Your task to perform on an android device: turn off priority inbox in the gmail app Image 0: 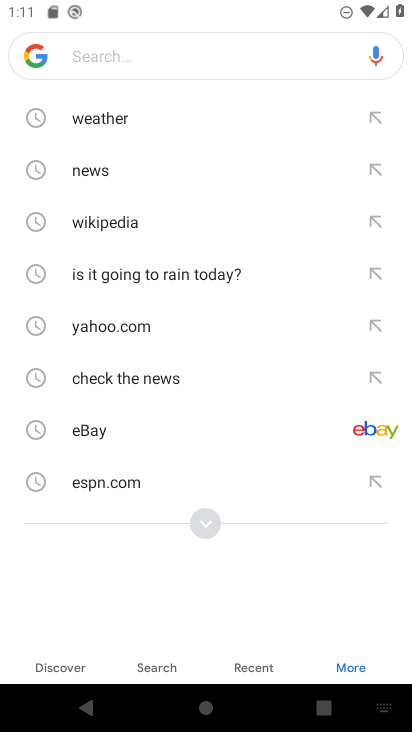
Step 0: press home button
Your task to perform on an android device: turn off priority inbox in the gmail app Image 1: 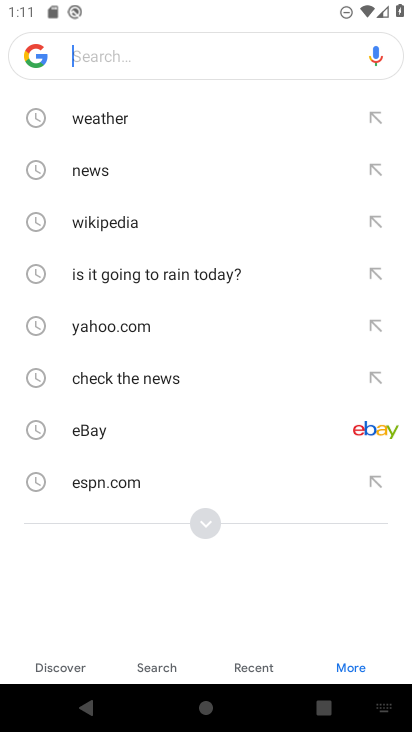
Step 1: press home button
Your task to perform on an android device: turn off priority inbox in the gmail app Image 2: 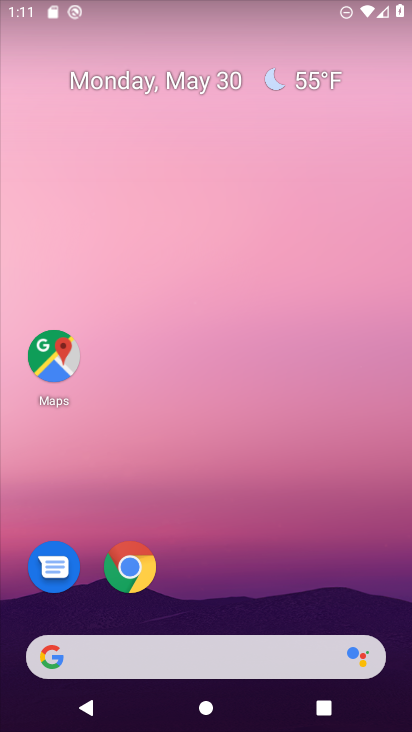
Step 2: drag from (210, 616) to (182, 54)
Your task to perform on an android device: turn off priority inbox in the gmail app Image 3: 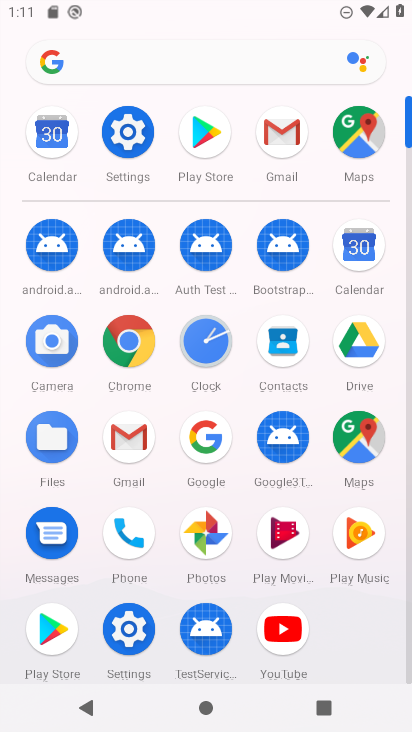
Step 3: click (279, 128)
Your task to perform on an android device: turn off priority inbox in the gmail app Image 4: 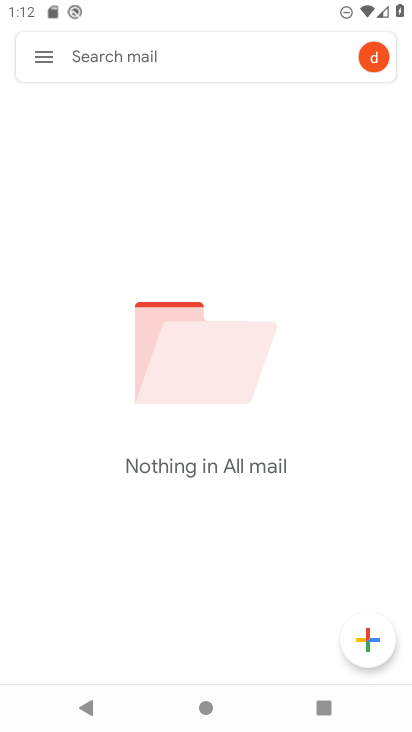
Step 4: click (35, 50)
Your task to perform on an android device: turn off priority inbox in the gmail app Image 5: 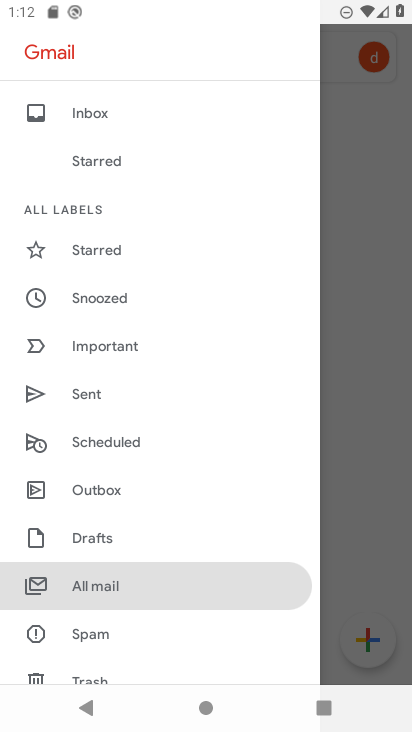
Step 5: drag from (117, 640) to (110, 254)
Your task to perform on an android device: turn off priority inbox in the gmail app Image 6: 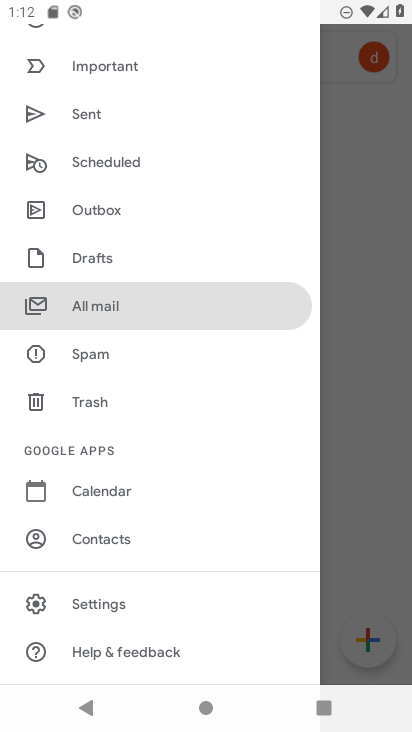
Step 6: click (135, 593)
Your task to perform on an android device: turn off priority inbox in the gmail app Image 7: 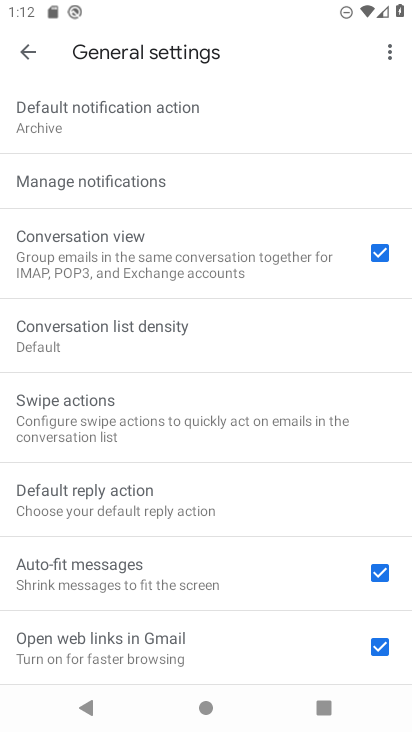
Step 7: click (22, 45)
Your task to perform on an android device: turn off priority inbox in the gmail app Image 8: 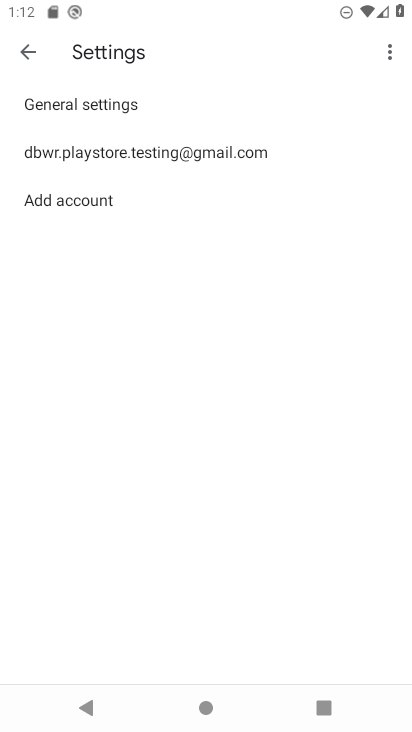
Step 8: click (201, 145)
Your task to perform on an android device: turn off priority inbox in the gmail app Image 9: 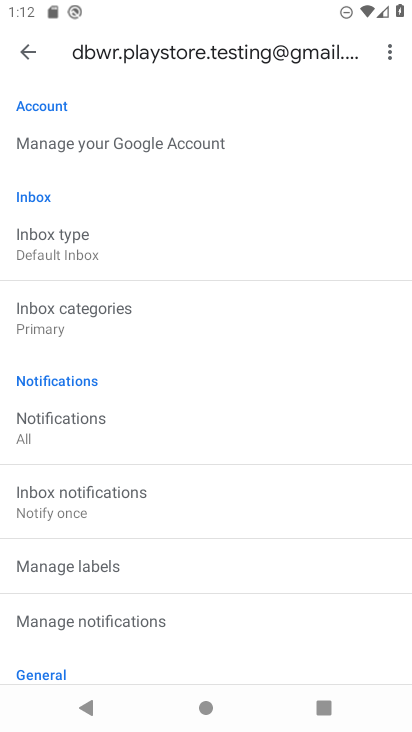
Step 9: click (102, 251)
Your task to perform on an android device: turn off priority inbox in the gmail app Image 10: 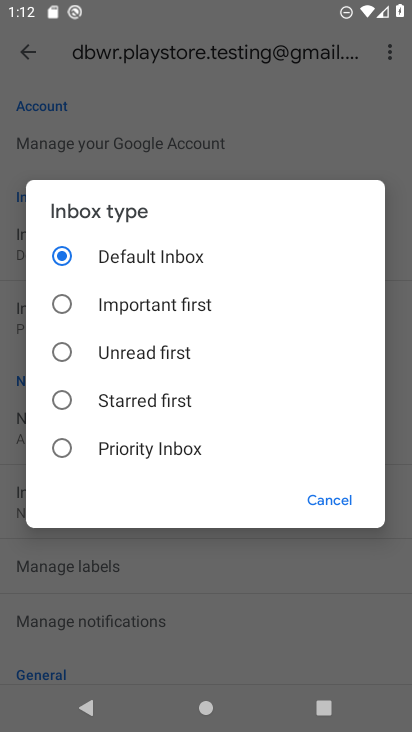
Step 10: click (54, 403)
Your task to perform on an android device: turn off priority inbox in the gmail app Image 11: 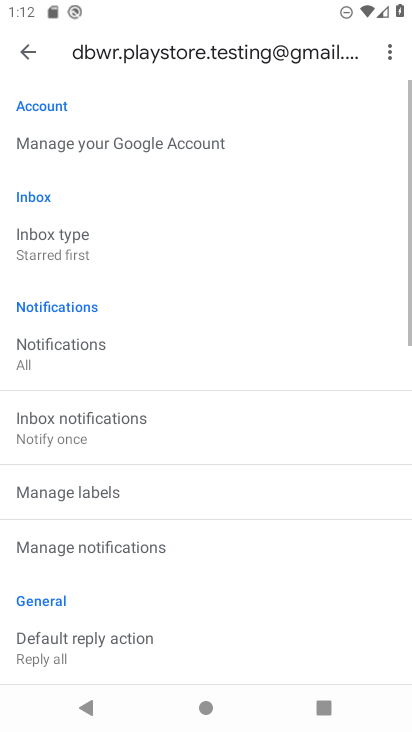
Step 11: task complete